Your task to perform on an android device: Open Google Maps and go to "Timeline" Image 0: 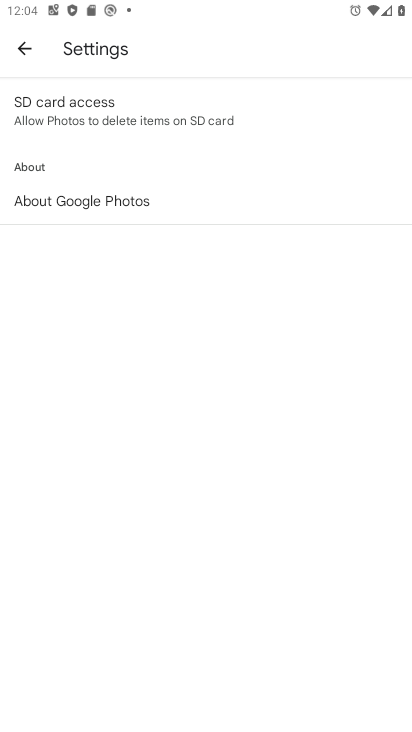
Step 0: press home button
Your task to perform on an android device: Open Google Maps and go to "Timeline" Image 1: 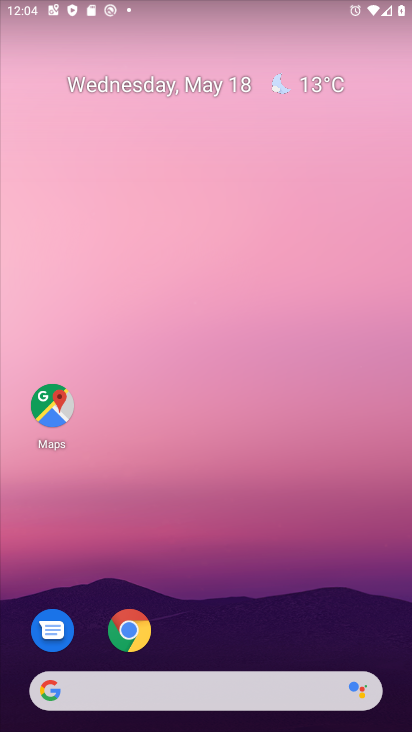
Step 1: drag from (224, 720) to (215, 380)
Your task to perform on an android device: Open Google Maps and go to "Timeline" Image 2: 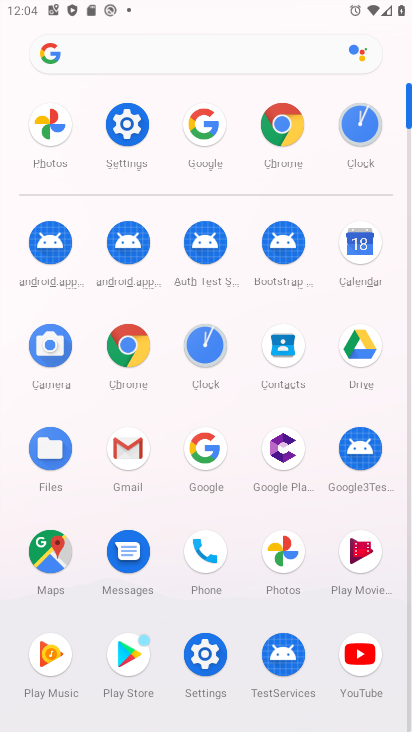
Step 2: click (55, 548)
Your task to perform on an android device: Open Google Maps and go to "Timeline" Image 3: 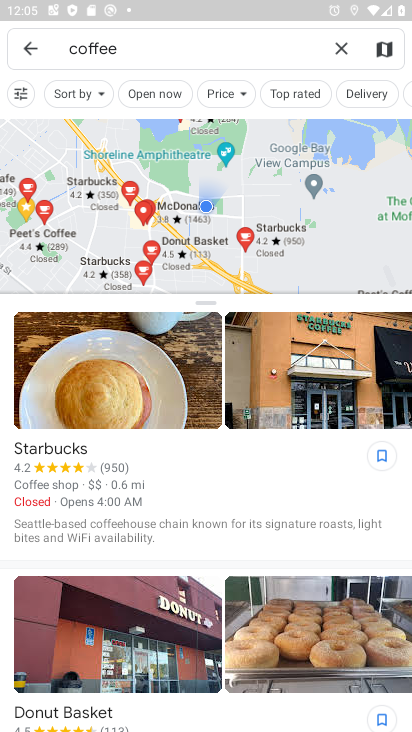
Step 3: click (31, 55)
Your task to perform on an android device: Open Google Maps and go to "Timeline" Image 4: 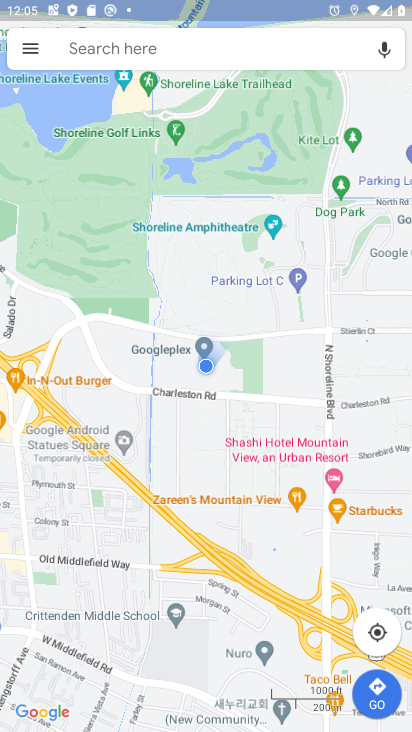
Step 4: click (28, 47)
Your task to perform on an android device: Open Google Maps and go to "Timeline" Image 5: 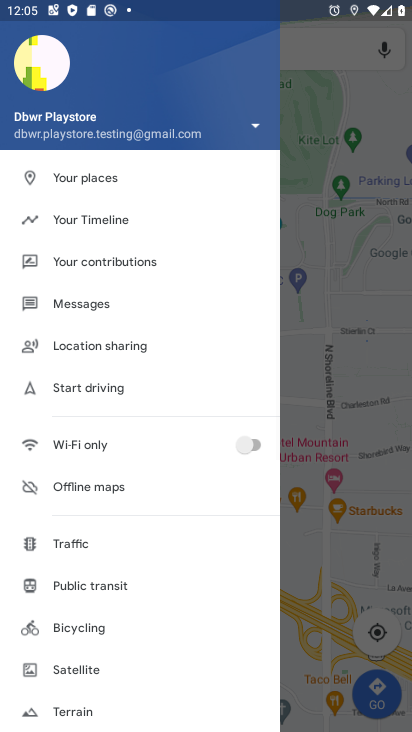
Step 5: click (81, 222)
Your task to perform on an android device: Open Google Maps and go to "Timeline" Image 6: 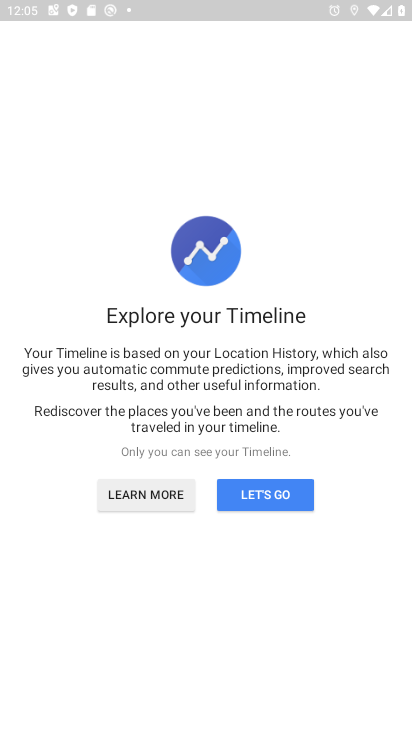
Step 6: click (263, 492)
Your task to perform on an android device: Open Google Maps and go to "Timeline" Image 7: 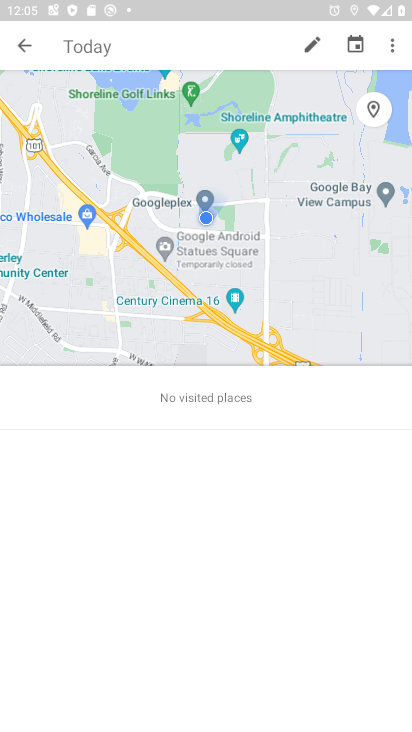
Step 7: task complete